Your task to perform on an android device: turn pop-ups off in chrome Image 0: 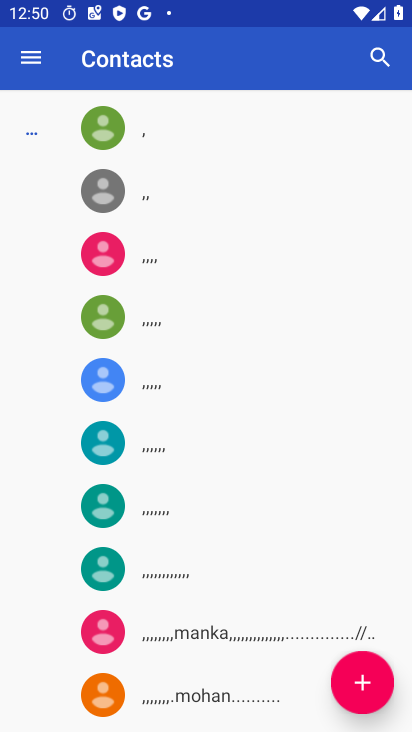
Step 0: press home button
Your task to perform on an android device: turn pop-ups off in chrome Image 1: 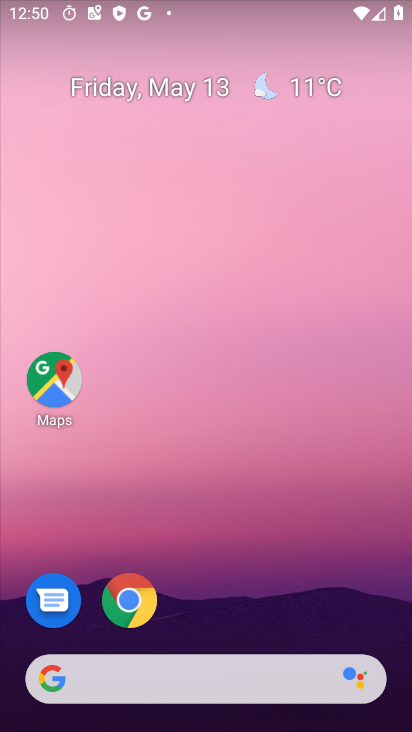
Step 1: drag from (334, 607) to (226, 179)
Your task to perform on an android device: turn pop-ups off in chrome Image 2: 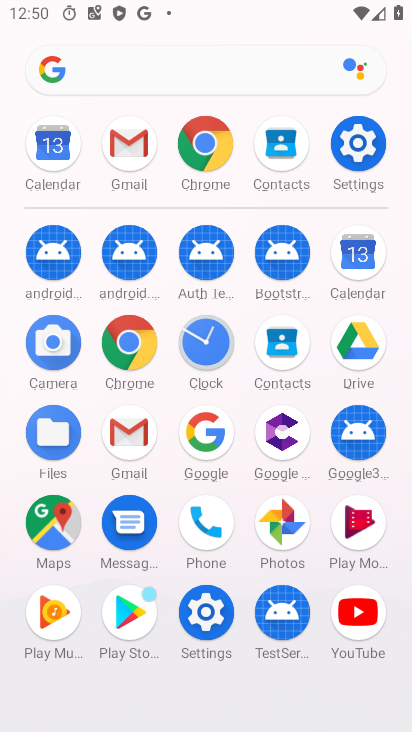
Step 2: click (129, 324)
Your task to perform on an android device: turn pop-ups off in chrome Image 3: 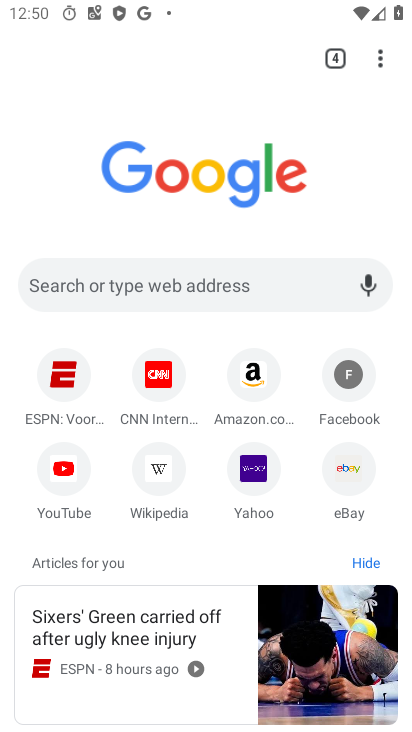
Step 3: click (390, 58)
Your task to perform on an android device: turn pop-ups off in chrome Image 4: 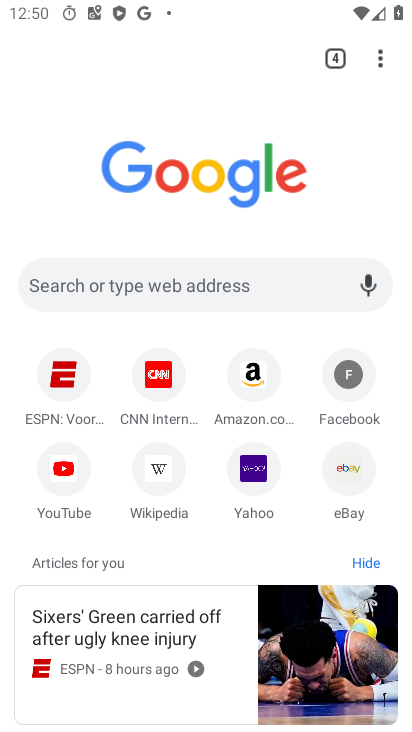
Step 4: click (377, 58)
Your task to perform on an android device: turn pop-ups off in chrome Image 5: 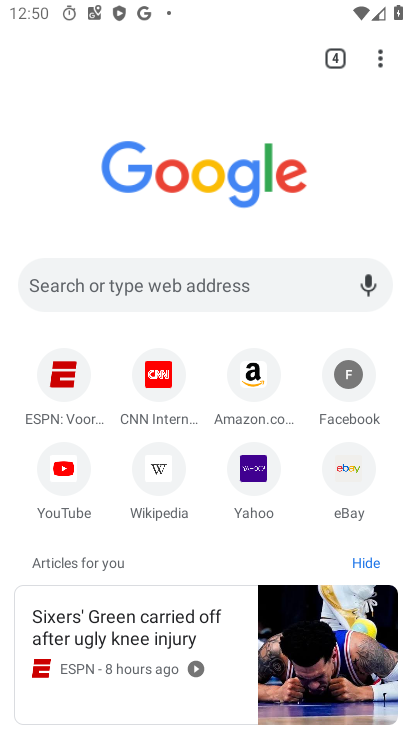
Step 5: drag from (232, 577) to (142, 126)
Your task to perform on an android device: turn pop-ups off in chrome Image 6: 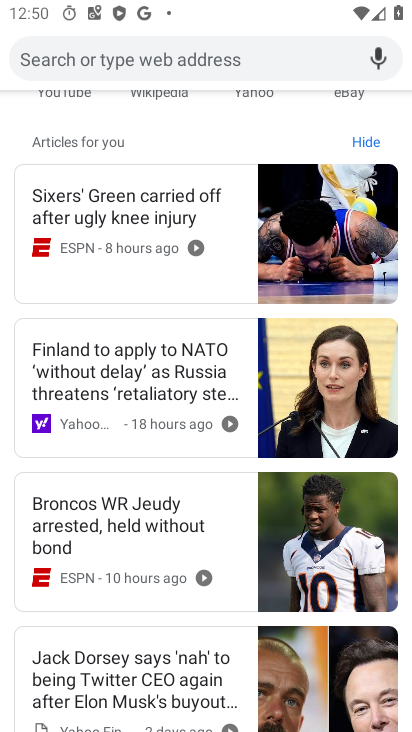
Step 6: drag from (223, 122) to (346, 502)
Your task to perform on an android device: turn pop-ups off in chrome Image 7: 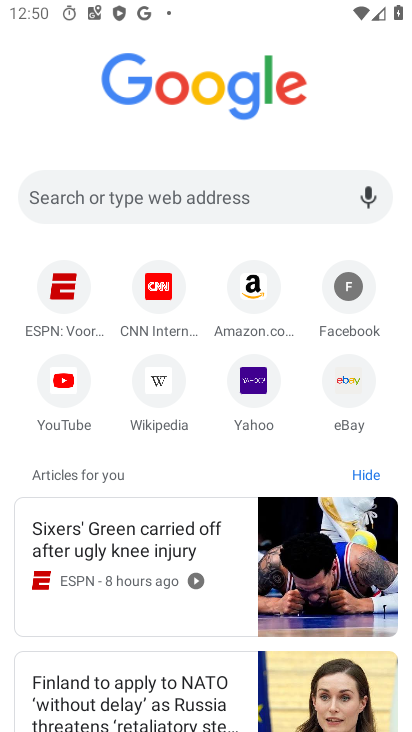
Step 7: drag from (365, 122) to (352, 388)
Your task to perform on an android device: turn pop-ups off in chrome Image 8: 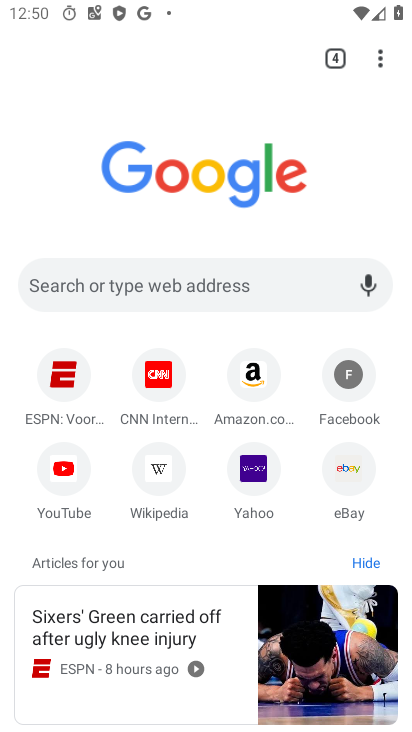
Step 8: click (377, 51)
Your task to perform on an android device: turn pop-ups off in chrome Image 9: 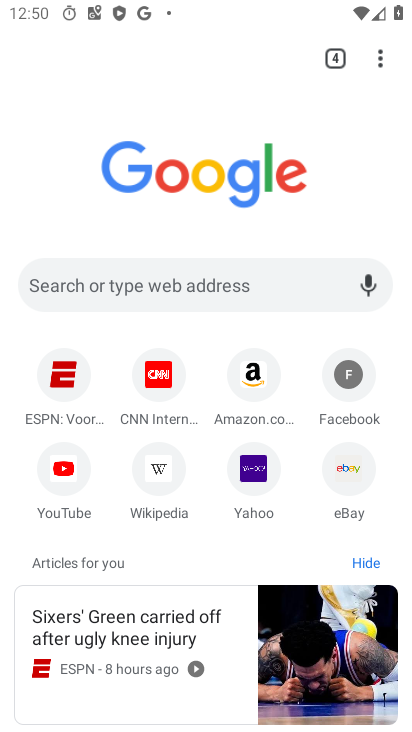
Step 9: drag from (378, 63) to (206, 479)
Your task to perform on an android device: turn pop-ups off in chrome Image 10: 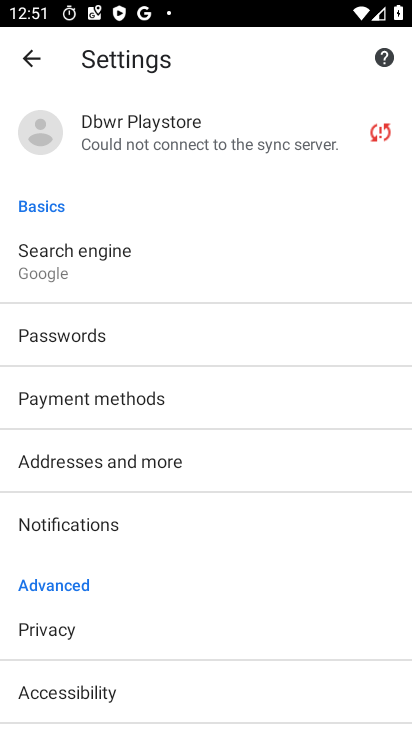
Step 10: drag from (287, 647) to (286, 246)
Your task to perform on an android device: turn pop-ups off in chrome Image 11: 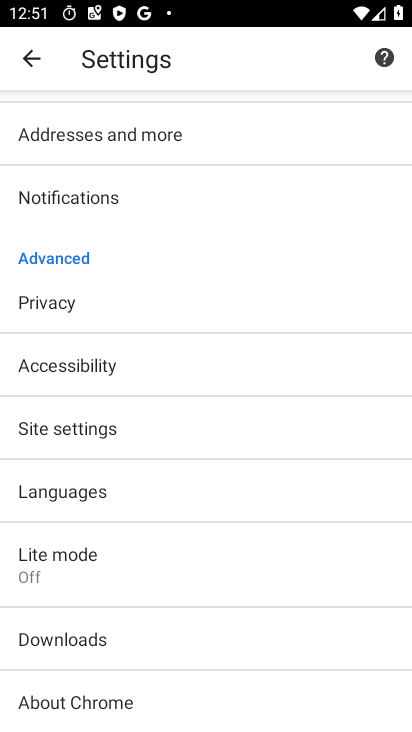
Step 11: click (92, 439)
Your task to perform on an android device: turn pop-ups off in chrome Image 12: 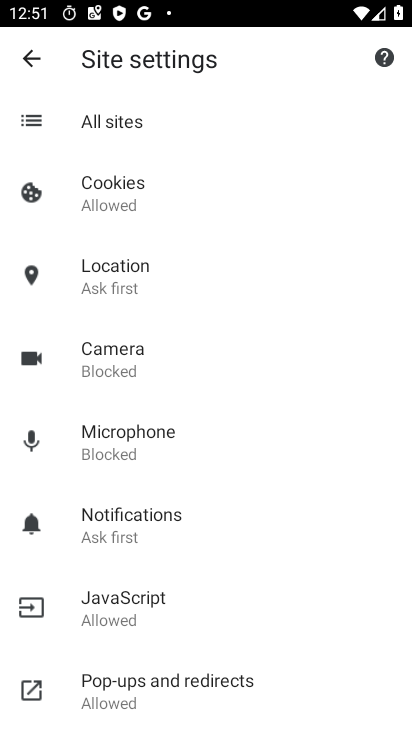
Step 12: click (153, 684)
Your task to perform on an android device: turn pop-ups off in chrome Image 13: 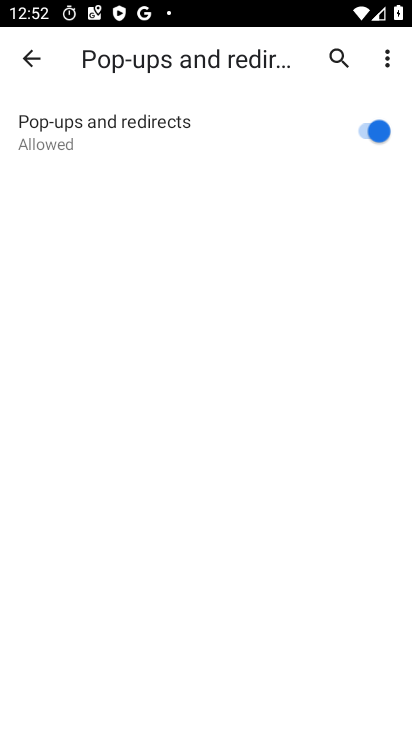
Step 13: click (374, 126)
Your task to perform on an android device: turn pop-ups off in chrome Image 14: 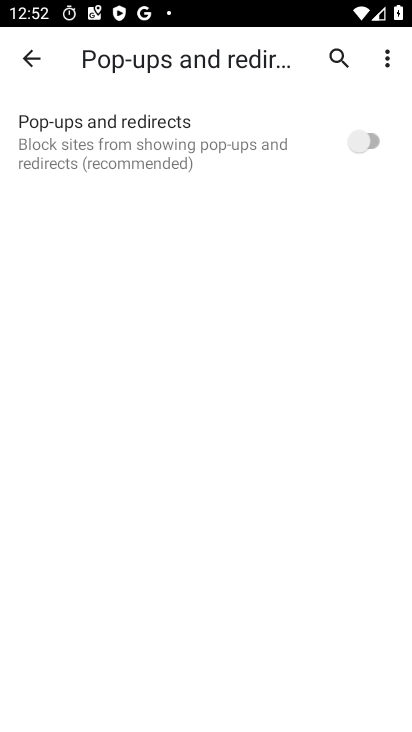
Step 14: task complete